Your task to perform on an android device: turn on bluetooth scan Image 0: 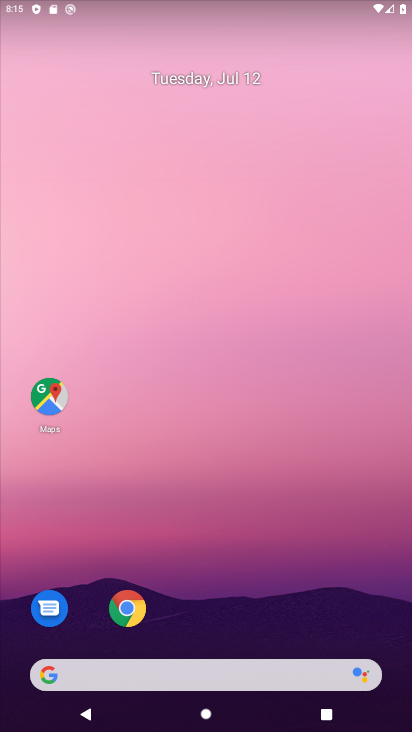
Step 0: drag from (303, 527) to (292, 2)
Your task to perform on an android device: turn on bluetooth scan Image 1: 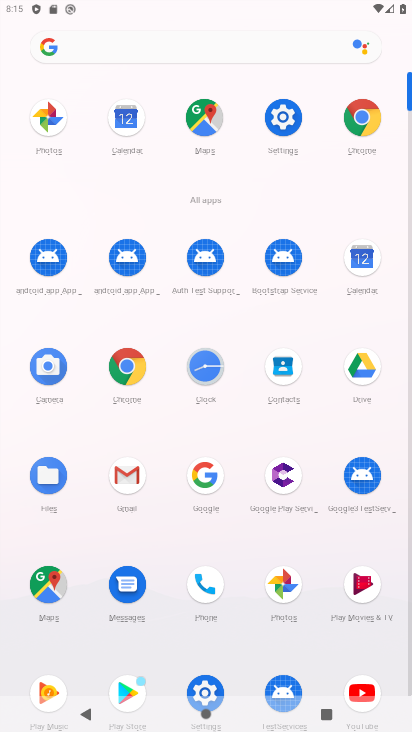
Step 1: click (293, 115)
Your task to perform on an android device: turn on bluetooth scan Image 2: 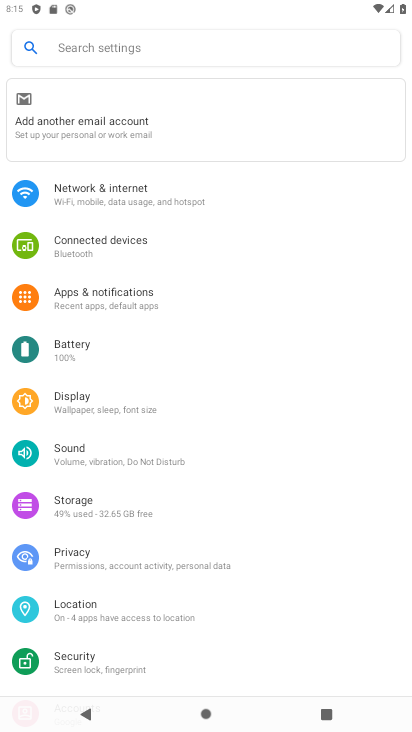
Step 2: click (153, 602)
Your task to perform on an android device: turn on bluetooth scan Image 3: 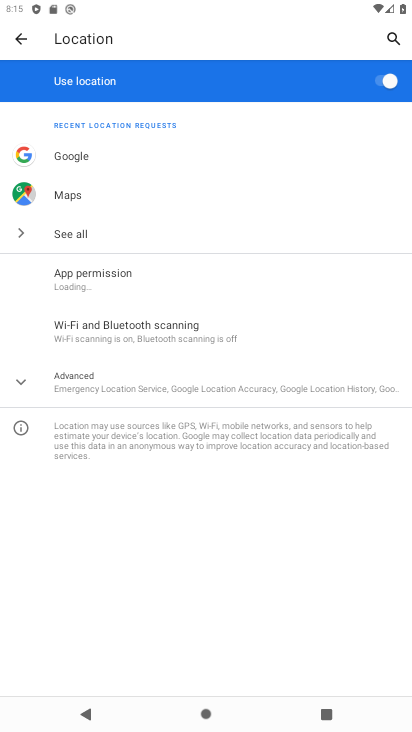
Step 3: click (164, 332)
Your task to perform on an android device: turn on bluetooth scan Image 4: 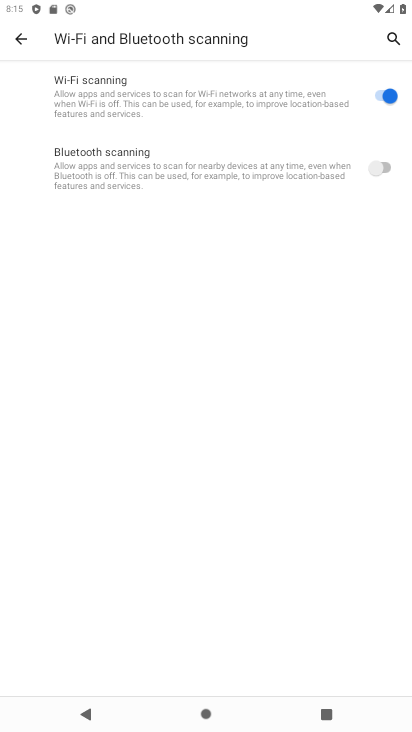
Step 4: click (386, 159)
Your task to perform on an android device: turn on bluetooth scan Image 5: 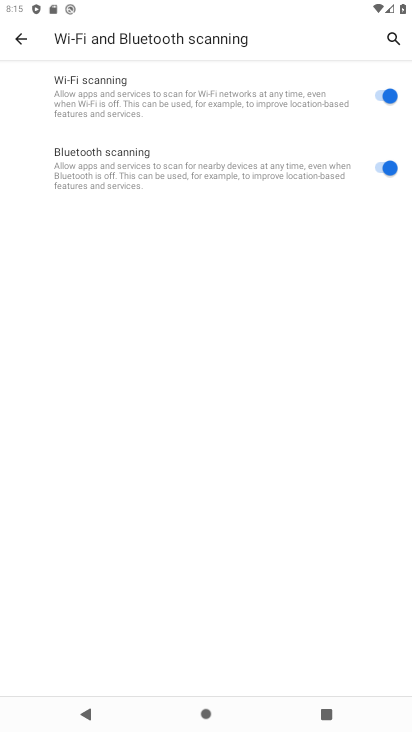
Step 5: task complete